Your task to perform on an android device: Do I have any events this weekend? Image 0: 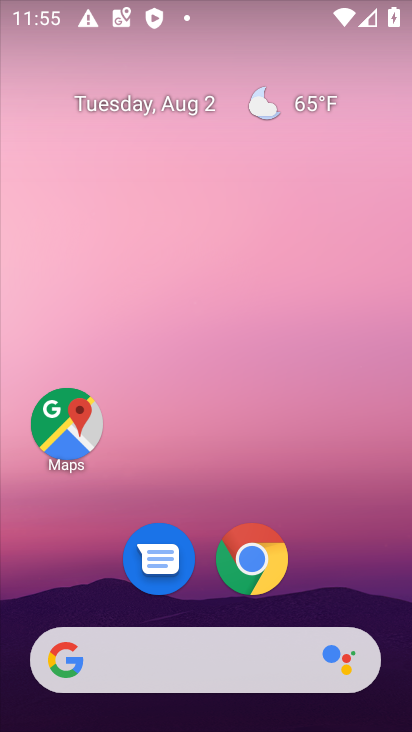
Step 0: drag from (212, 413) to (212, 84)
Your task to perform on an android device: Do I have any events this weekend? Image 1: 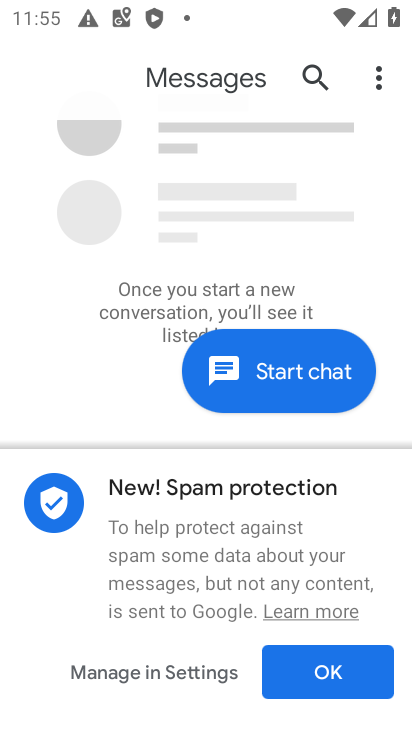
Step 1: press home button
Your task to perform on an android device: Do I have any events this weekend? Image 2: 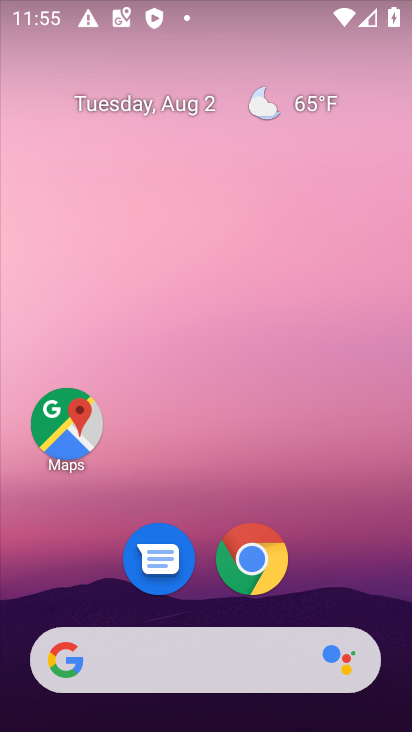
Step 2: drag from (207, 598) to (207, 36)
Your task to perform on an android device: Do I have any events this weekend? Image 3: 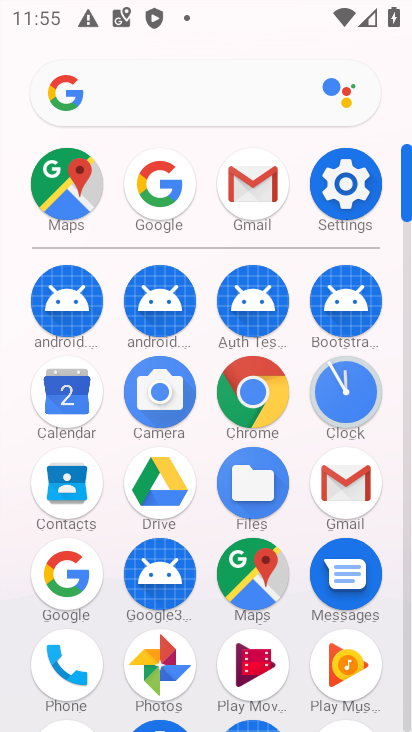
Step 3: click (65, 397)
Your task to perform on an android device: Do I have any events this weekend? Image 4: 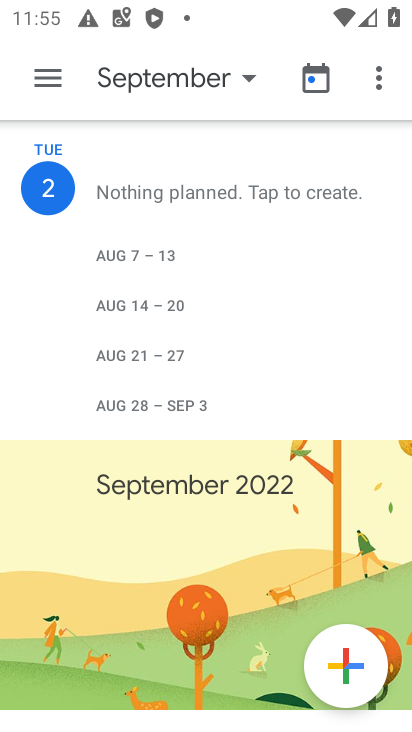
Step 4: click (246, 76)
Your task to perform on an android device: Do I have any events this weekend? Image 5: 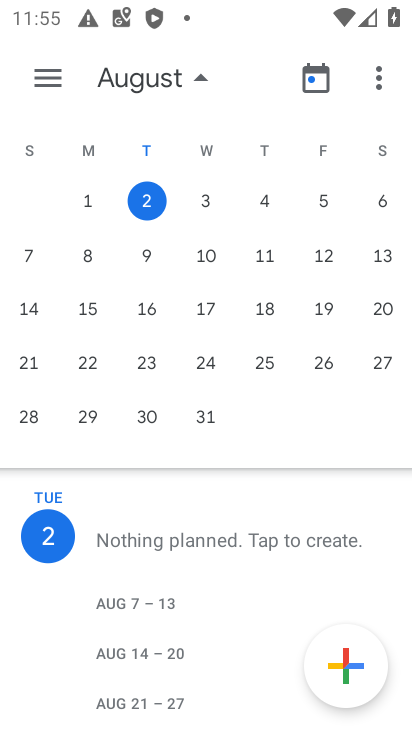
Step 5: click (46, 80)
Your task to perform on an android device: Do I have any events this weekend? Image 6: 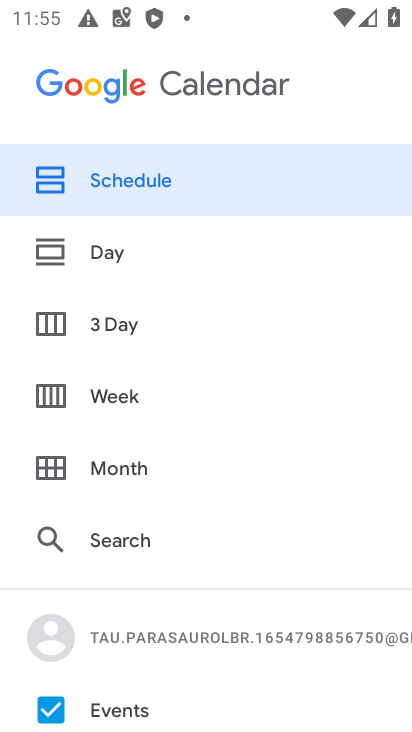
Step 6: drag from (139, 671) to (150, 443)
Your task to perform on an android device: Do I have any events this weekend? Image 7: 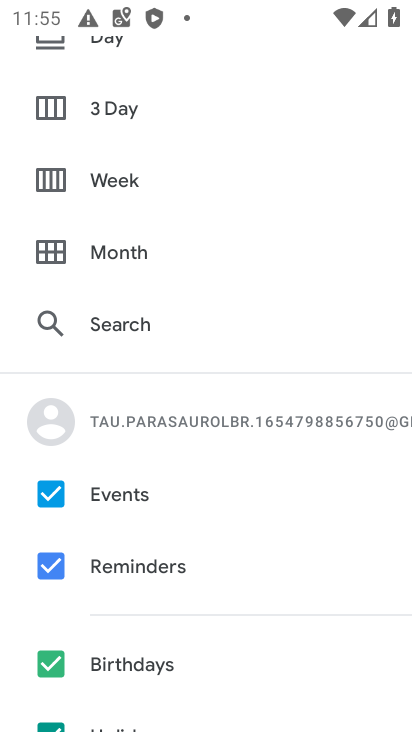
Step 7: click (57, 722)
Your task to perform on an android device: Do I have any events this weekend? Image 8: 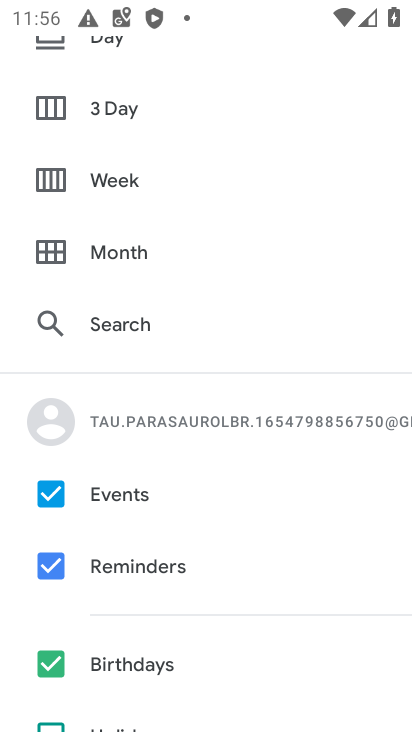
Step 8: click (51, 657)
Your task to perform on an android device: Do I have any events this weekend? Image 9: 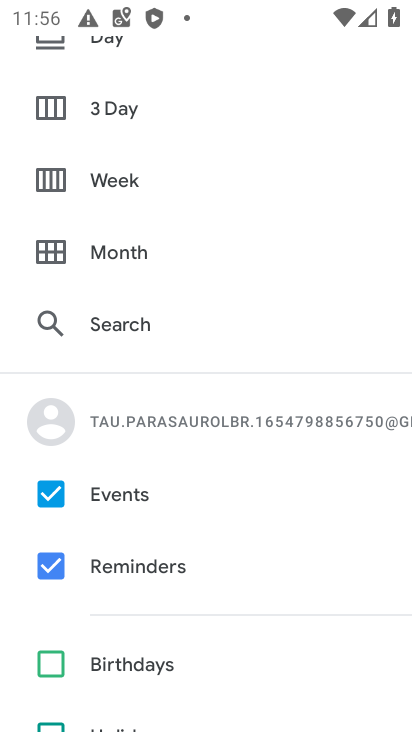
Step 9: click (44, 557)
Your task to perform on an android device: Do I have any events this weekend? Image 10: 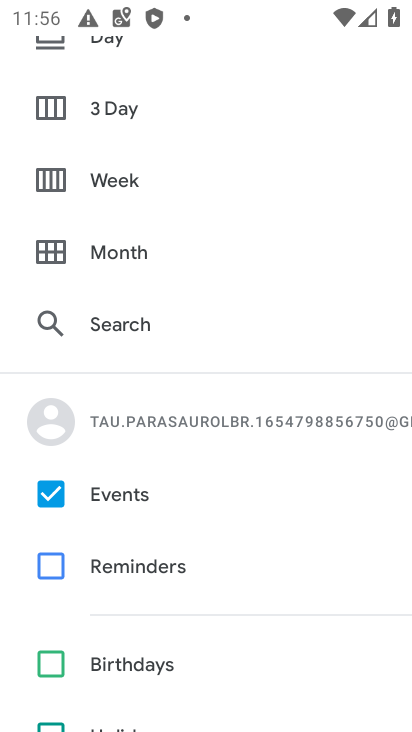
Step 10: click (128, 181)
Your task to perform on an android device: Do I have any events this weekend? Image 11: 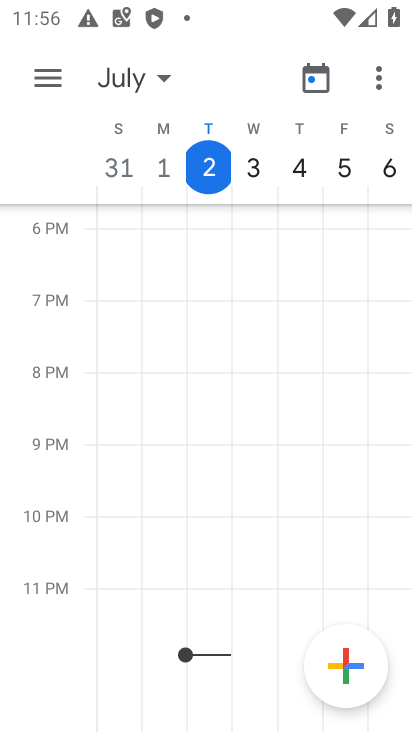
Step 11: click (382, 166)
Your task to perform on an android device: Do I have any events this weekend? Image 12: 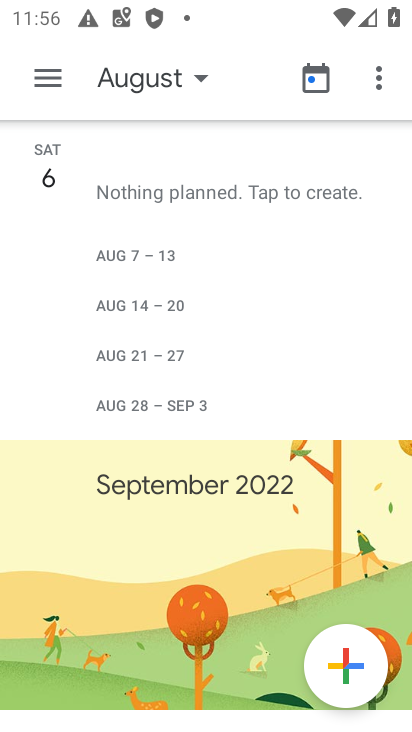
Step 12: task complete